Your task to perform on an android device: When is my next appointment? Image 0: 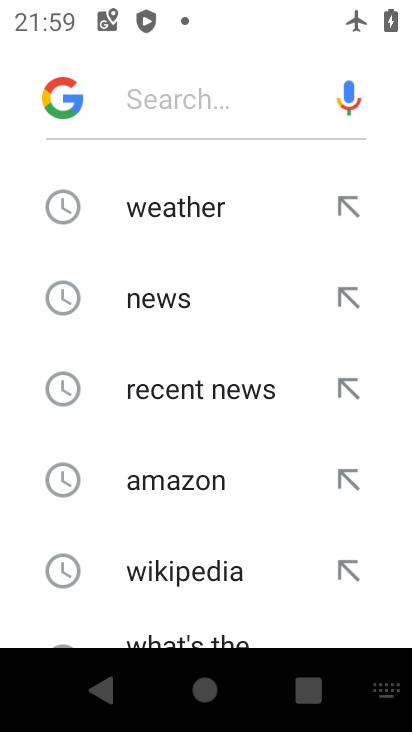
Step 0: press home button
Your task to perform on an android device: When is my next appointment? Image 1: 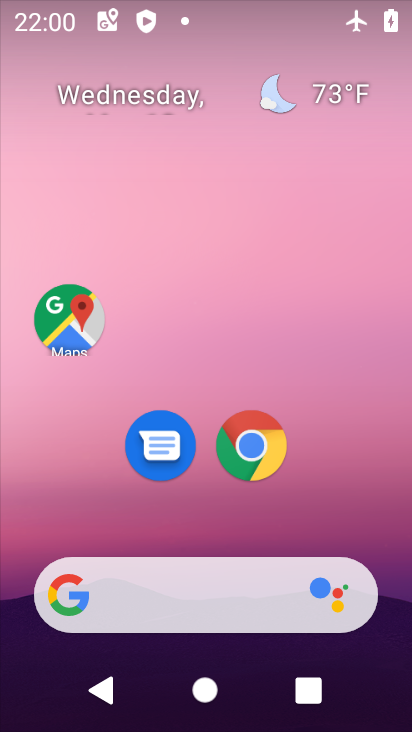
Step 1: drag from (340, 491) to (364, 146)
Your task to perform on an android device: When is my next appointment? Image 2: 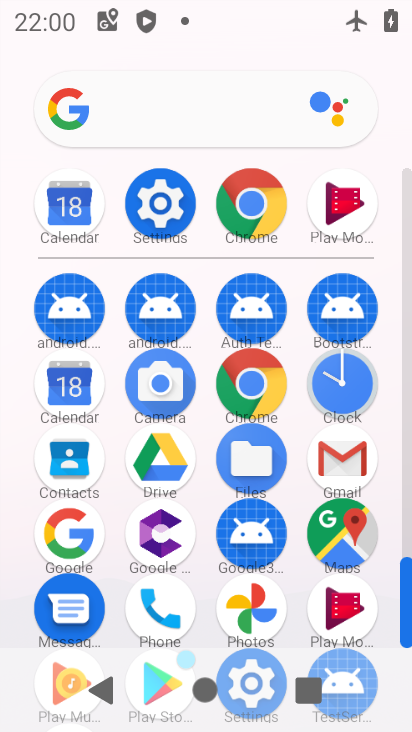
Step 2: click (61, 383)
Your task to perform on an android device: When is my next appointment? Image 3: 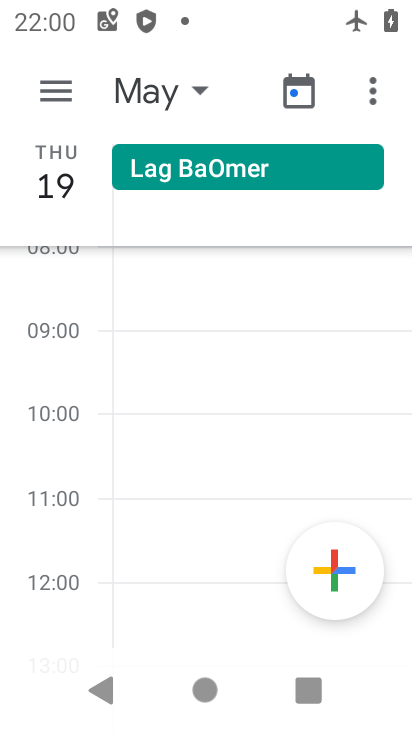
Step 3: click (53, 94)
Your task to perform on an android device: When is my next appointment? Image 4: 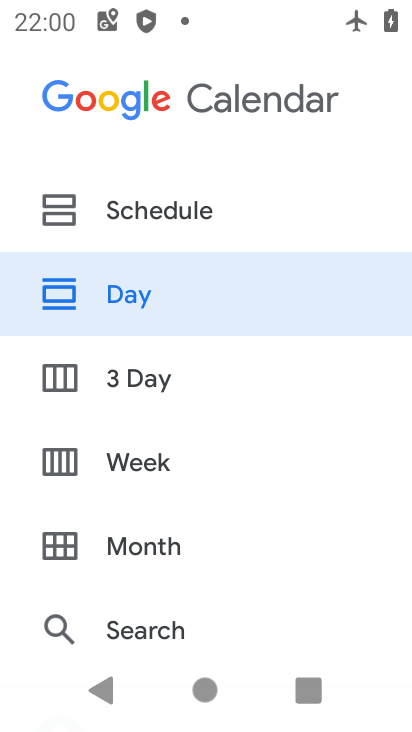
Step 4: click (146, 535)
Your task to perform on an android device: When is my next appointment? Image 5: 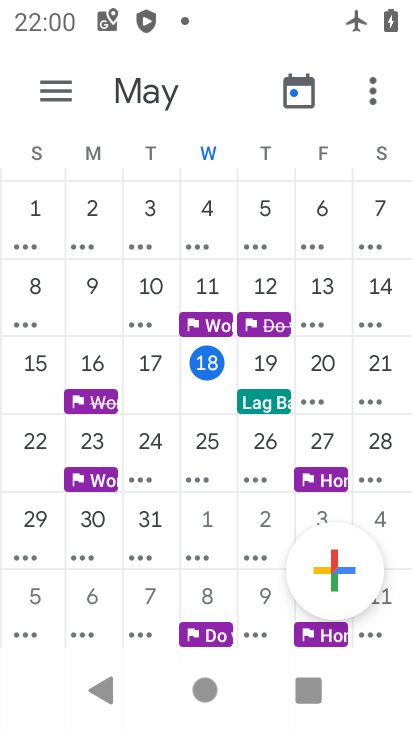
Step 5: click (318, 362)
Your task to perform on an android device: When is my next appointment? Image 6: 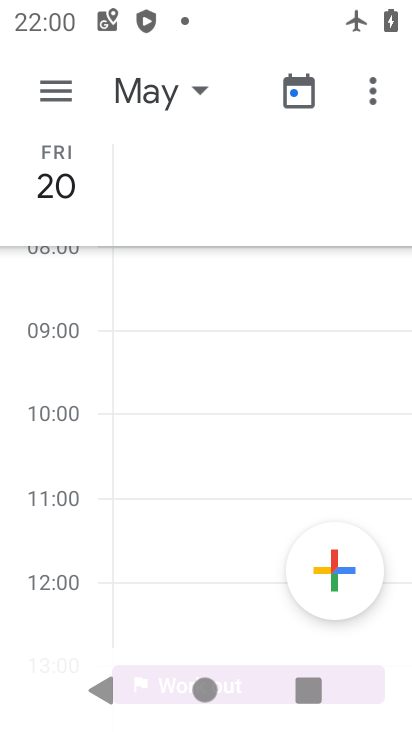
Step 6: task complete